Your task to perform on an android device: Open Google Chrome and click the shortcut for Amazon.com Image 0: 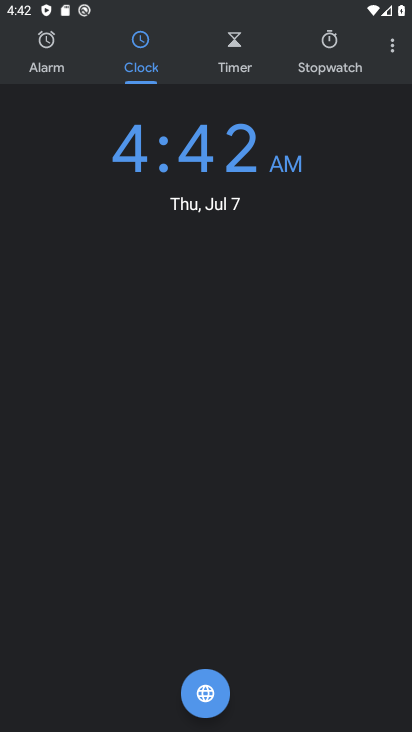
Step 0: press back button
Your task to perform on an android device: Open Google Chrome and click the shortcut for Amazon.com Image 1: 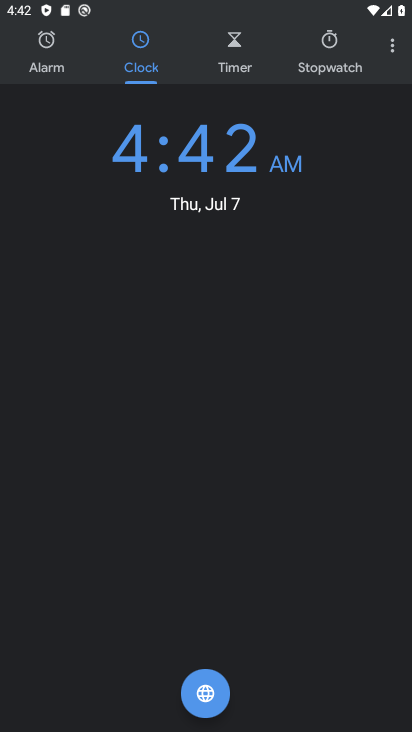
Step 1: press back button
Your task to perform on an android device: Open Google Chrome and click the shortcut for Amazon.com Image 2: 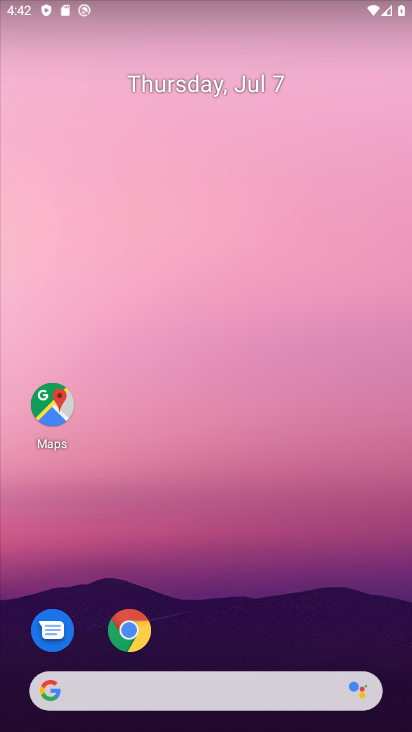
Step 2: drag from (215, 502) to (155, 90)
Your task to perform on an android device: Open Google Chrome and click the shortcut for Amazon.com Image 3: 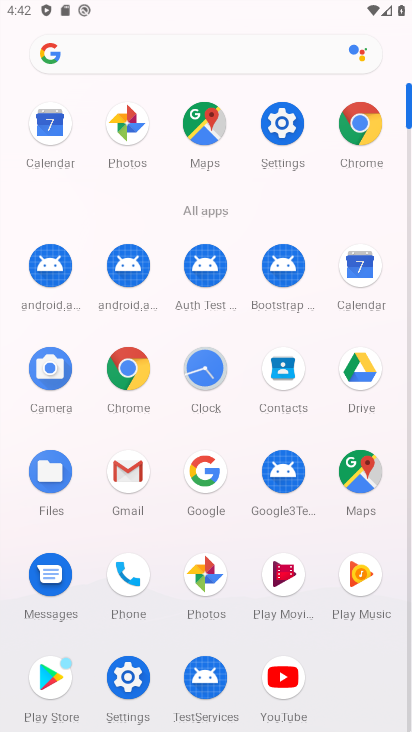
Step 3: click (366, 129)
Your task to perform on an android device: Open Google Chrome and click the shortcut for Amazon.com Image 4: 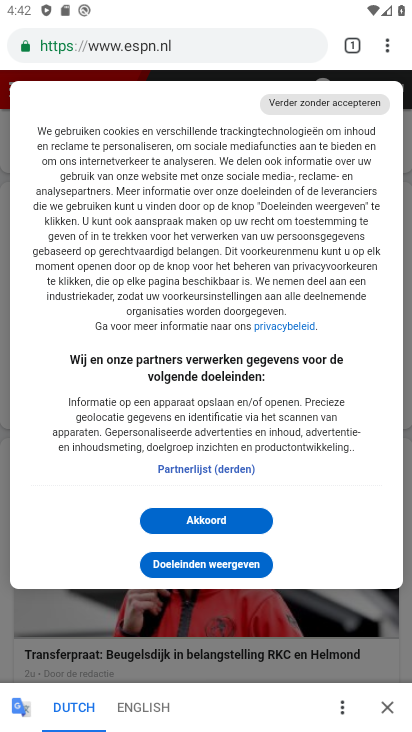
Step 4: click (390, 709)
Your task to perform on an android device: Open Google Chrome and click the shortcut for Amazon.com Image 5: 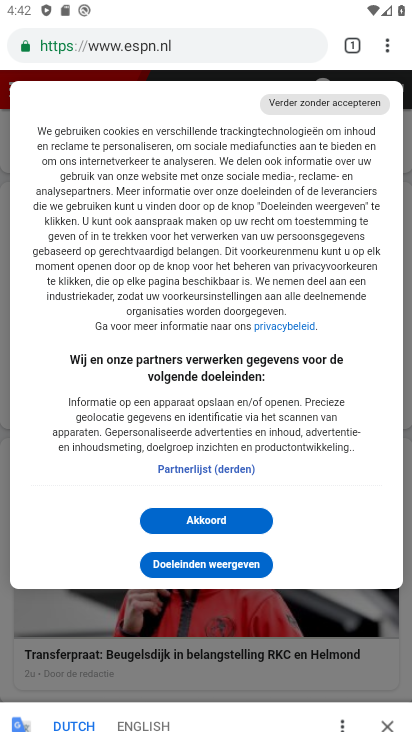
Step 5: click (390, 708)
Your task to perform on an android device: Open Google Chrome and click the shortcut for Amazon.com Image 6: 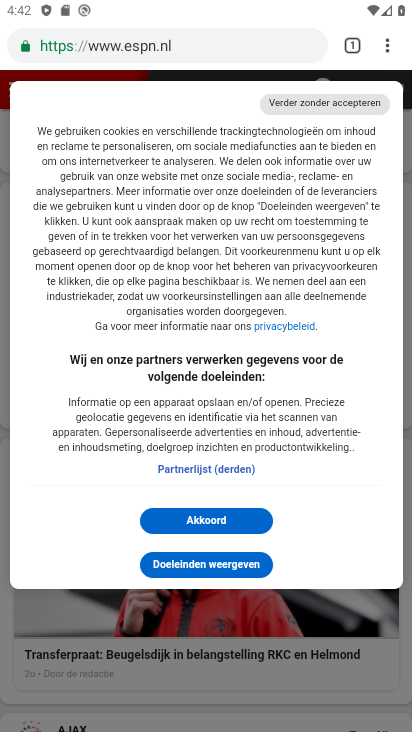
Step 6: click (4, 63)
Your task to perform on an android device: Open Google Chrome and click the shortcut for Amazon.com Image 7: 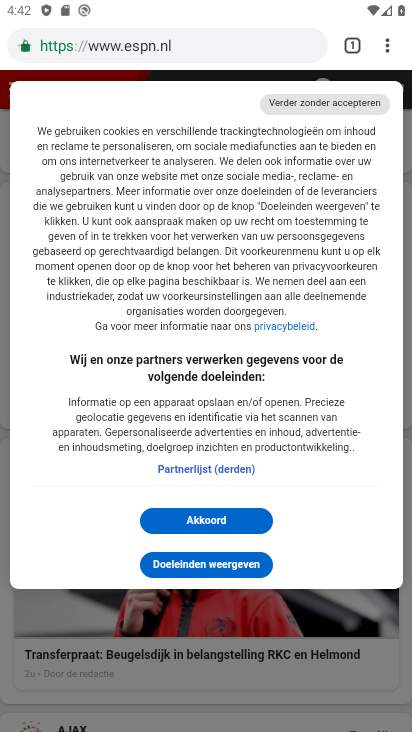
Step 7: click (0, 80)
Your task to perform on an android device: Open Google Chrome and click the shortcut for Amazon.com Image 8: 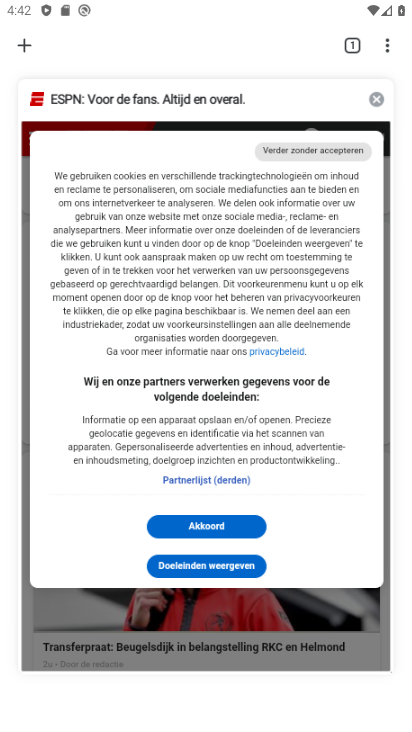
Step 8: click (15, 82)
Your task to perform on an android device: Open Google Chrome and click the shortcut for Amazon.com Image 9: 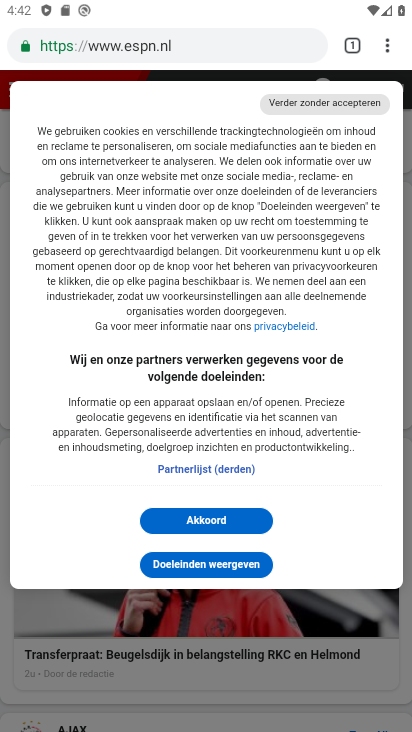
Step 9: click (242, 580)
Your task to perform on an android device: Open Google Chrome and click the shortcut for Amazon.com Image 10: 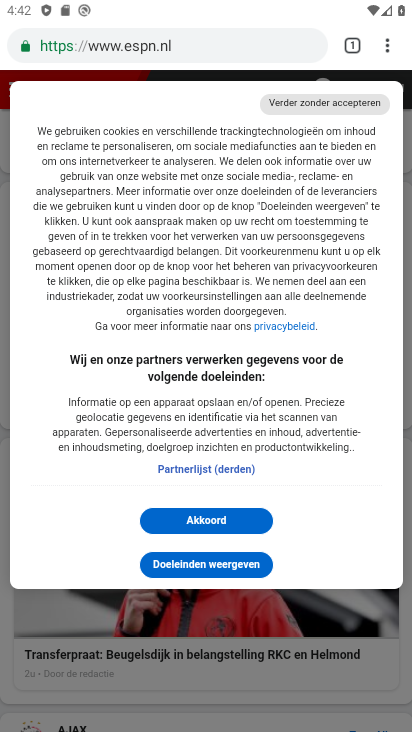
Step 10: click (244, 612)
Your task to perform on an android device: Open Google Chrome and click the shortcut for Amazon.com Image 11: 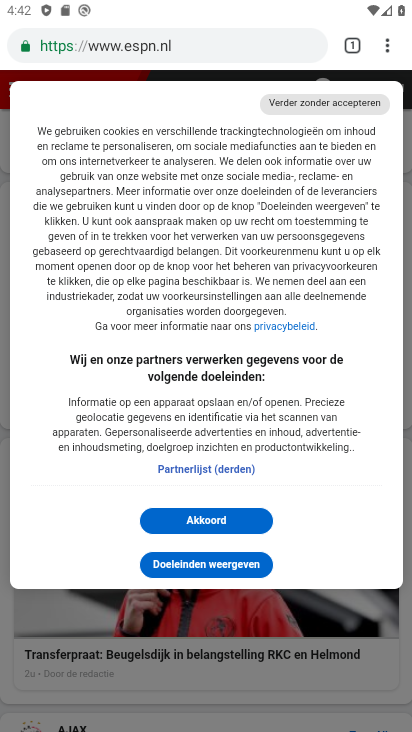
Step 11: click (258, 615)
Your task to perform on an android device: Open Google Chrome and click the shortcut for Amazon.com Image 12: 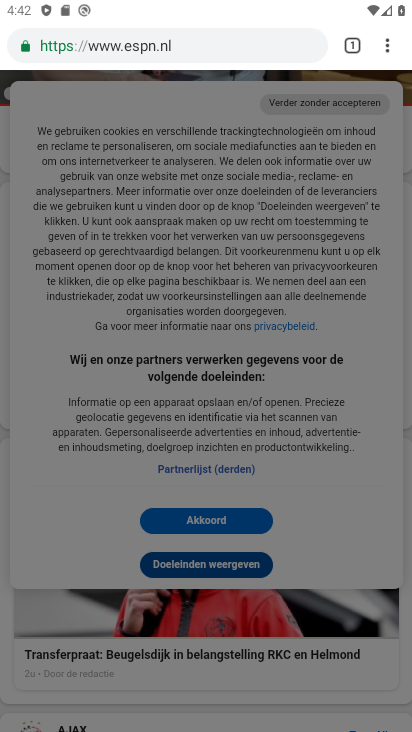
Step 12: drag from (260, 616) to (318, 617)
Your task to perform on an android device: Open Google Chrome and click the shortcut for Amazon.com Image 13: 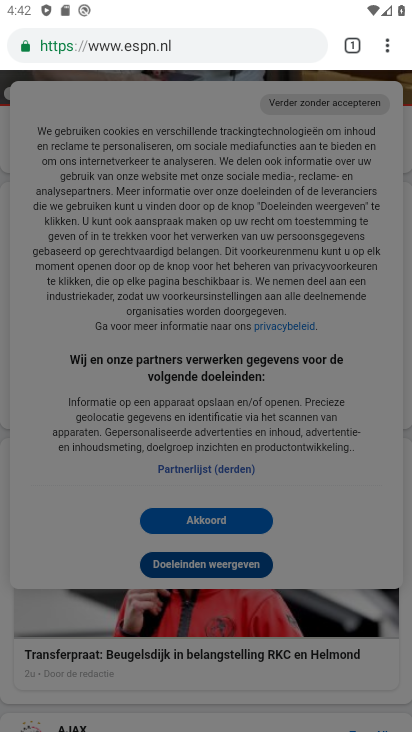
Step 13: click (318, 617)
Your task to perform on an android device: Open Google Chrome and click the shortcut for Amazon.com Image 14: 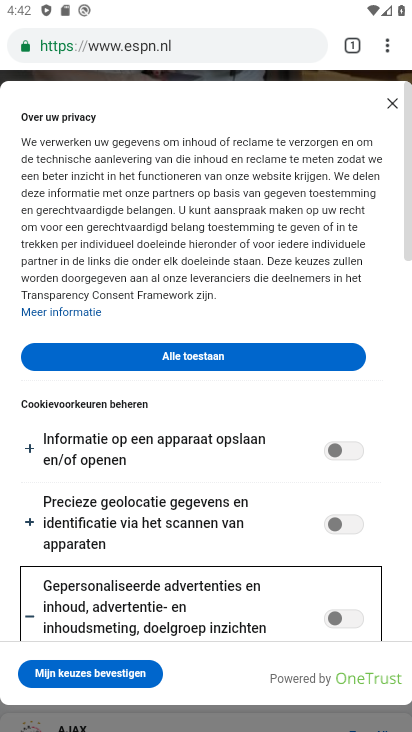
Step 14: click (385, 103)
Your task to perform on an android device: Open Google Chrome and click the shortcut for Amazon.com Image 15: 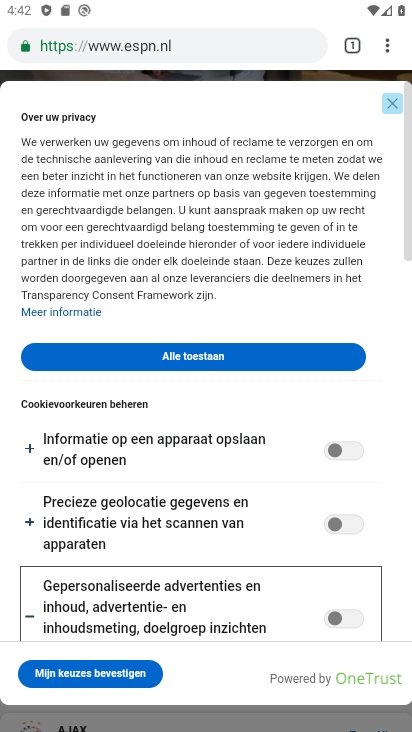
Step 15: click (387, 97)
Your task to perform on an android device: Open Google Chrome and click the shortcut for Amazon.com Image 16: 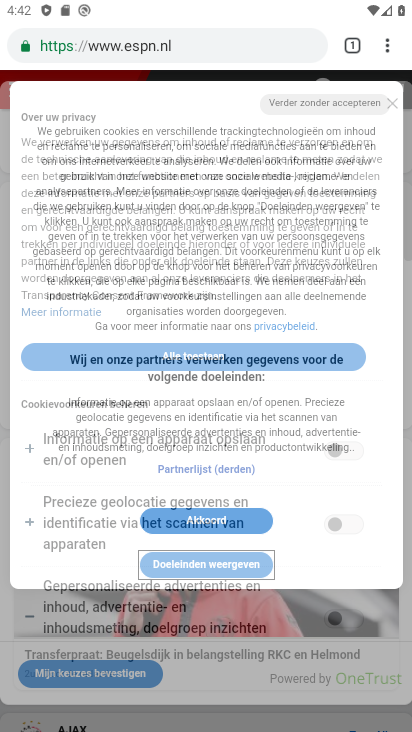
Step 16: click (386, 97)
Your task to perform on an android device: Open Google Chrome and click the shortcut for Amazon.com Image 17: 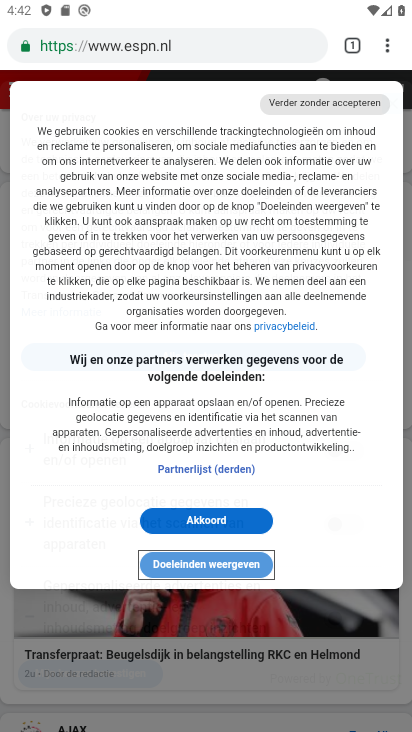
Step 17: click (386, 97)
Your task to perform on an android device: Open Google Chrome and click the shortcut for Amazon.com Image 18: 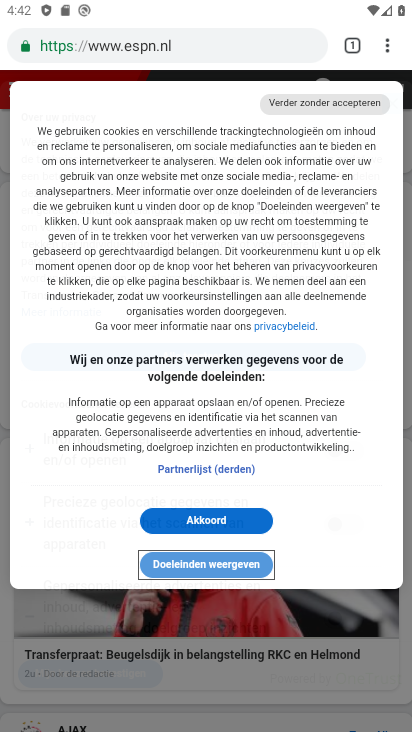
Step 18: click (386, 97)
Your task to perform on an android device: Open Google Chrome and click the shortcut for Amazon.com Image 19: 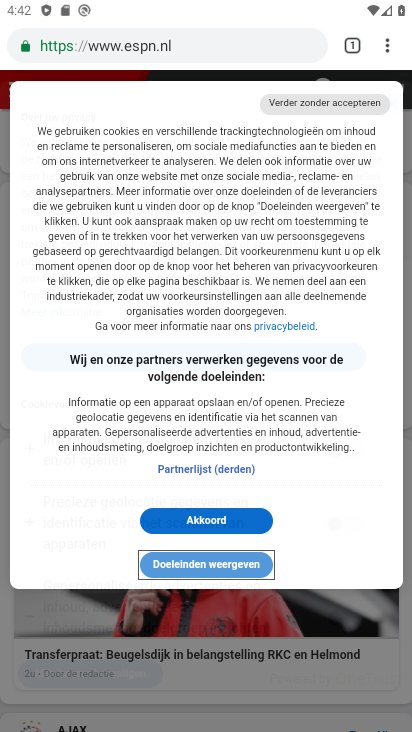
Step 19: click (387, 103)
Your task to perform on an android device: Open Google Chrome and click the shortcut for Amazon.com Image 20: 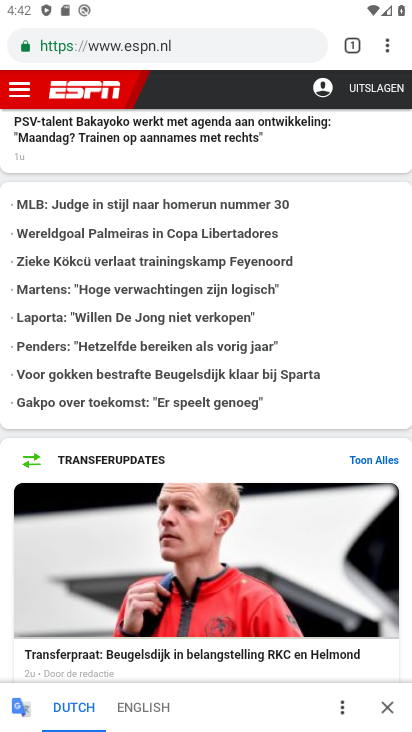
Step 20: drag from (394, 42) to (214, 98)
Your task to perform on an android device: Open Google Chrome and click the shortcut for Amazon.com Image 21: 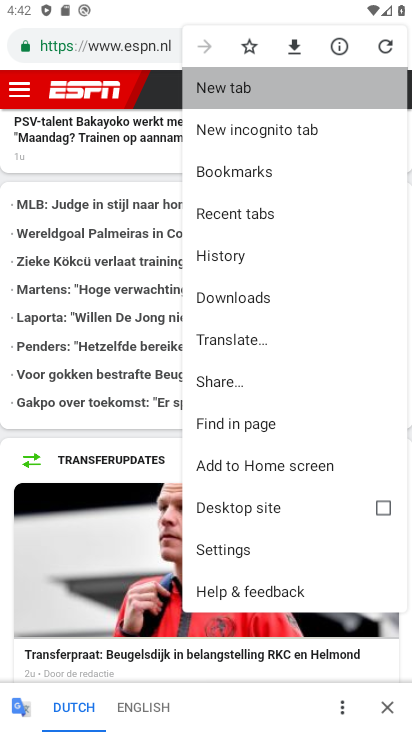
Step 21: click (217, 96)
Your task to perform on an android device: Open Google Chrome and click the shortcut for Amazon.com Image 22: 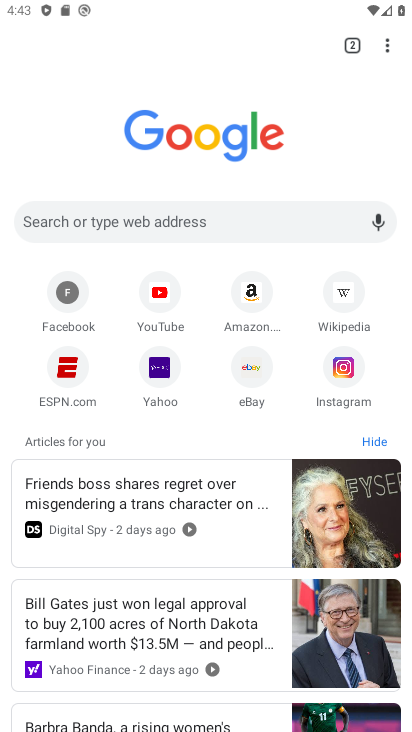
Step 22: click (348, 284)
Your task to perform on an android device: Open Google Chrome and click the shortcut for Amazon.com Image 23: 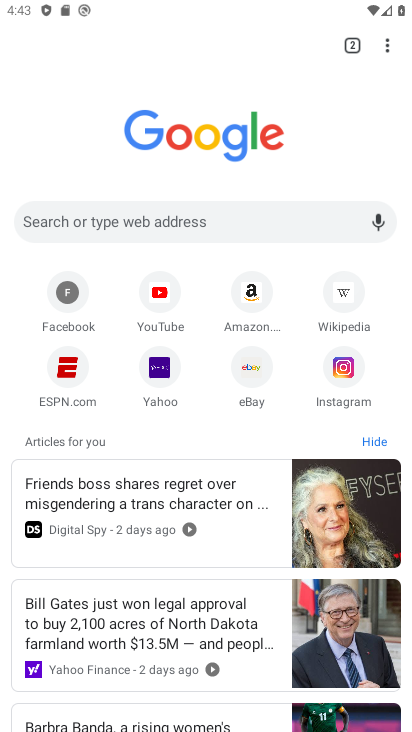
Step 23: click (348, 284)
Your task to perform on an android device: Open Google Chrome and click the shortcut for Amazon.com Image 24: 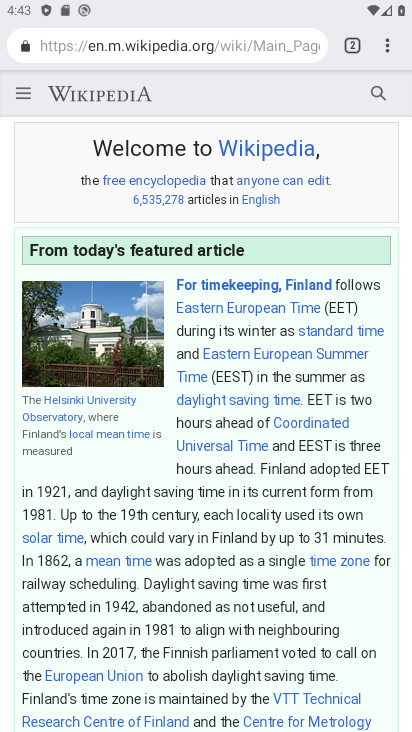
Step 24: click (386, 47)
Your task to perform on an android device: Open Google Chrome and click the shortcut for Amazon.com Image 25: 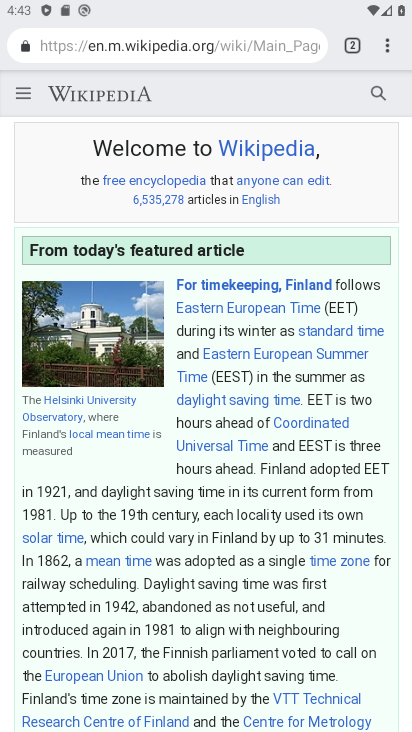
Step 25: click (388, 45)
Your task to perform on an android device: Open Google Chrome and click the shortcut for Amazon.com Image 26: 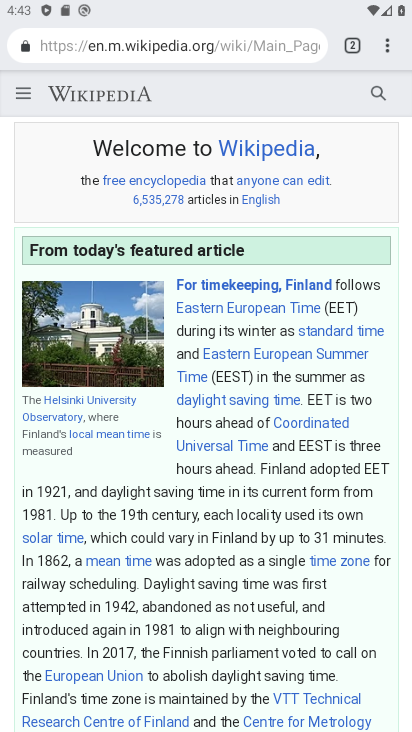
Step 26: drag from (387, 48) to (227, 103)
Your task to perform on an android device: Open Google Chrome and click the shortcut for Amazon.com Image 27: 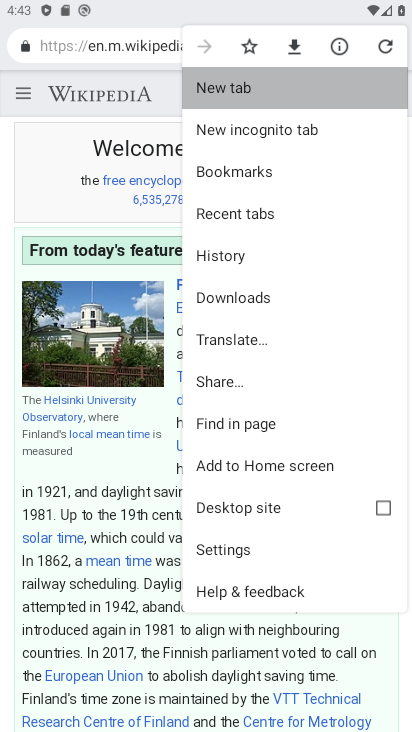
Step 27: click (231, 104)
Your task to perform on an android device: Open Google Chrome and click the shortcut for Amazon.com Image 28: 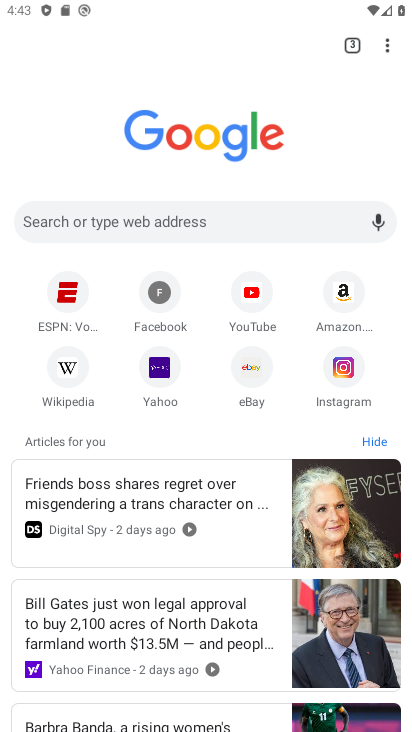
Step 28: click (337, 289)
Your task to perform on an android device: Open Google Chrome and click the shortcut for Amazon.com Image 29: 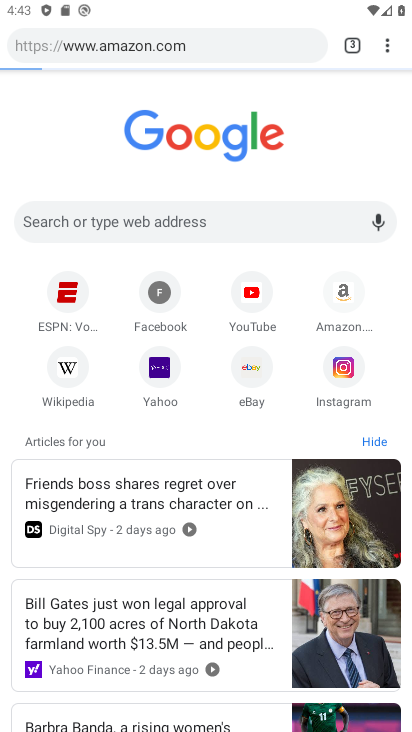
Step 29: click (339, 287)
Your task to perform on an android device: Open Google Chrome and click the shortcut for Amazon.com Image 30: 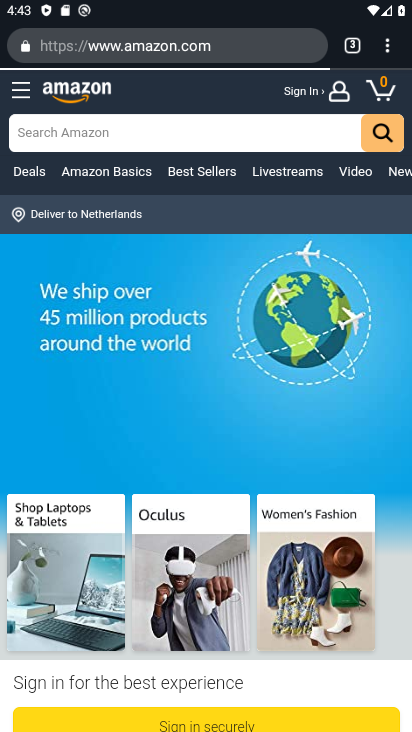
Step 30: task complete